Your task to perform on an android device: Is it going to rain this weekend? Image 0: 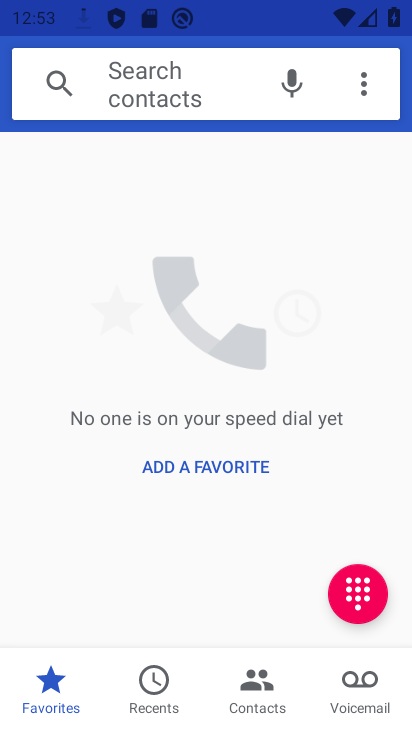
Step 0: press home button
Your task to perform on an android device: Is it going to rain this weekend? Image 1: 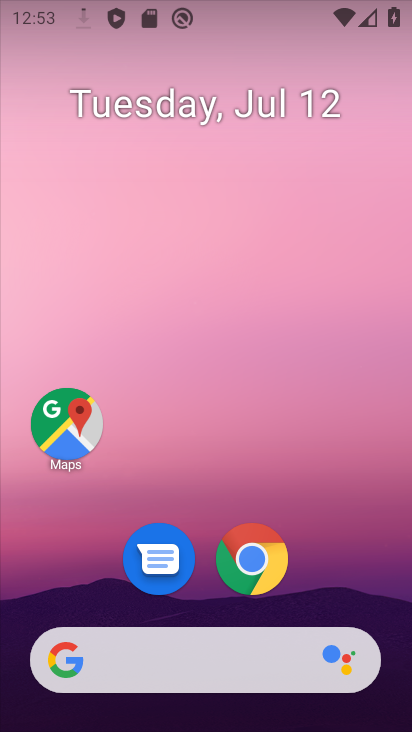
Step 1: drag from (350, 566) to (353, 64)
Your task to perform on an android device: Is it going to rain this weekend? Image 2: 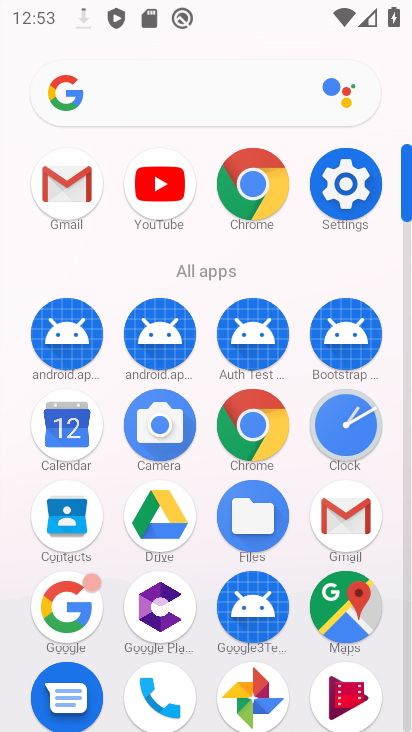
Step 2: click (74, 446)
Your task to perform on an android device: Is it going to rain this weekend? Image 3: 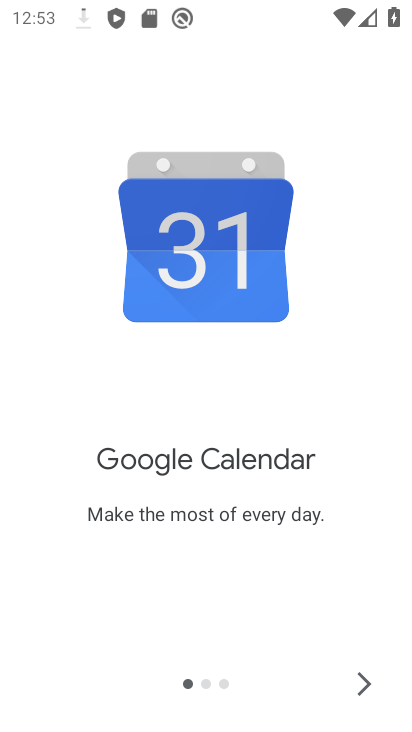
Step 3: click (355, 680)
Your task to perform on an android device: Is it going to rain this weekend? Image 4: 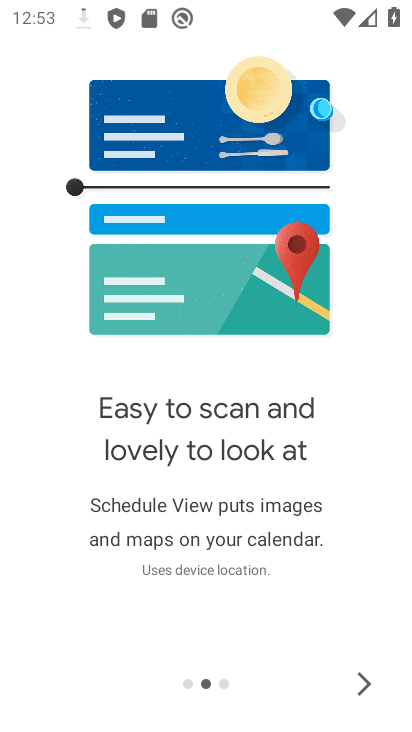
Step 4: press home button
Your task to perform on an android device: Is it going to rain this weekend? Image 5: 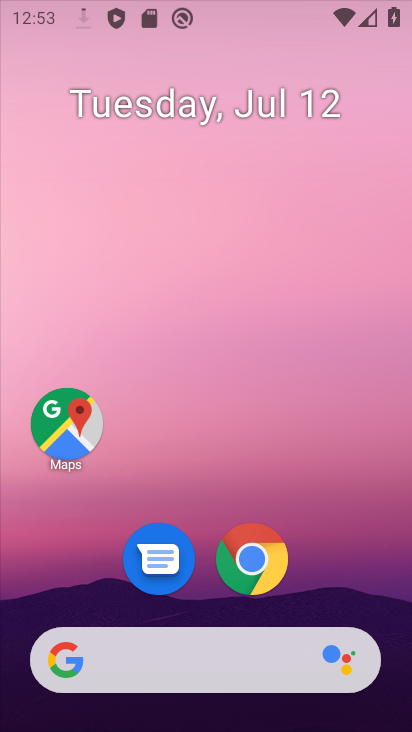
Step 5: click (234, 675)
Your task to perform on an android device: Is it going to rain this weekend? Image 6: 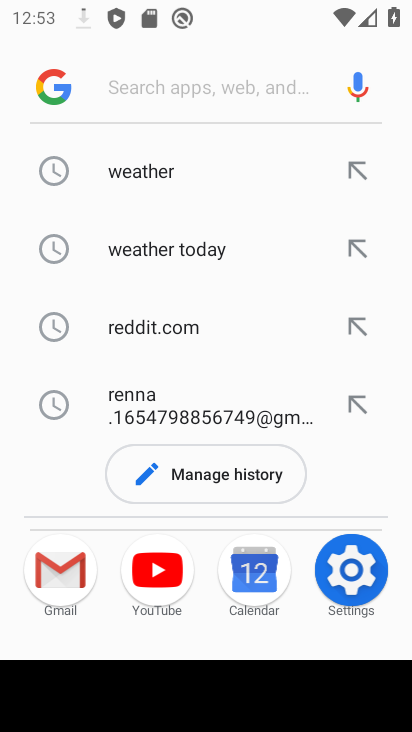
Step 6: click (143, 180)
Your task to perform on an android device: Is it going to rain this weekend? Image 7: 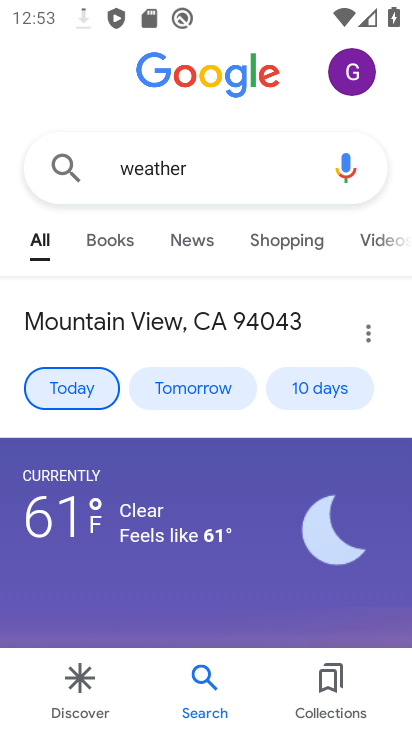
Step 7: click (315, 381)
Your task to perform on an android device: Is it going to rain this weekend? Image 8: 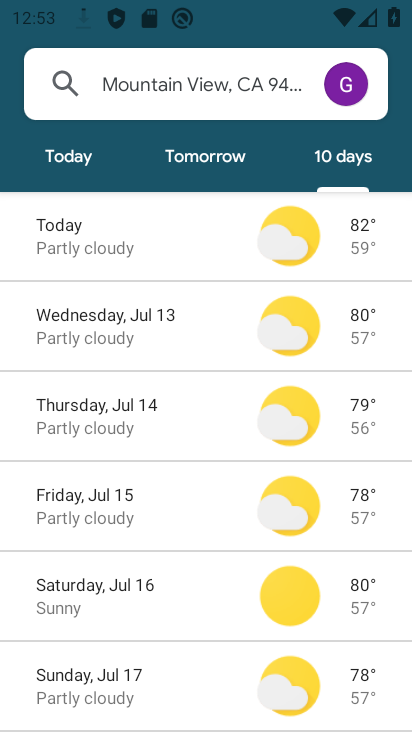
Step 8: drag from (195, 654) to (212, 466)
Your task to perform on an android device: Is it going to rain this weekend? Image 9: 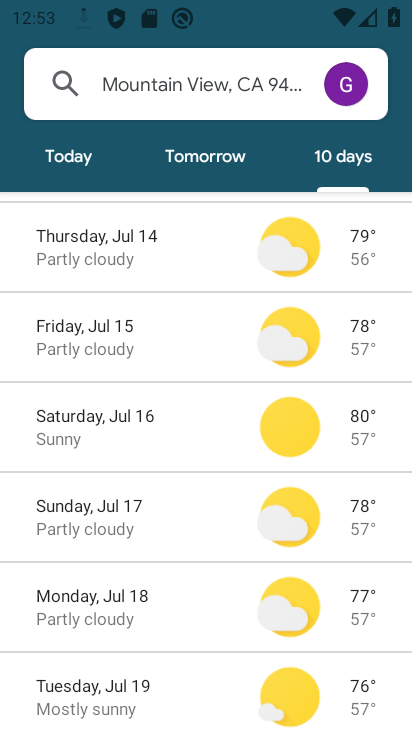
Step 9: drag from (192, 641) to (213, 444)
Your task to perform on an android device: Is it going to rain this weekend? Image 10: 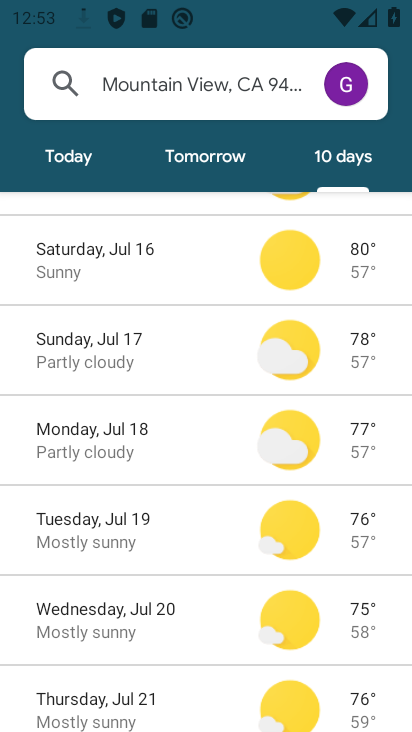
Step 10: drag from (198, 652) to (201, 501)
Your task to perform on an android device: Is it going to rain this weekend? Image 11: 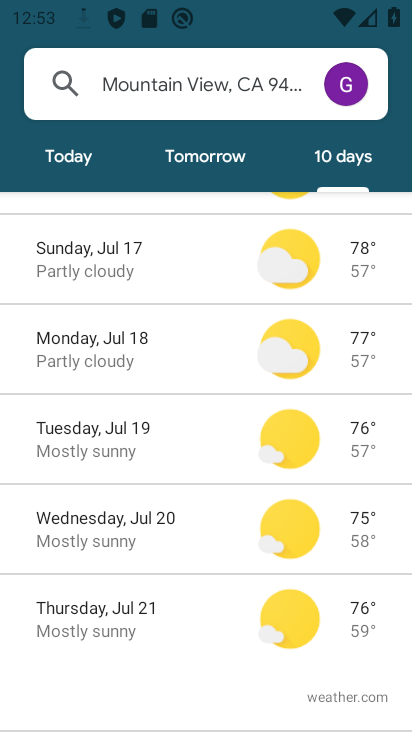
Step 11: drag from (195, 347) to (216, 542)
Your task to perform on an android device: Is it going to rain this weekend? Image 12: 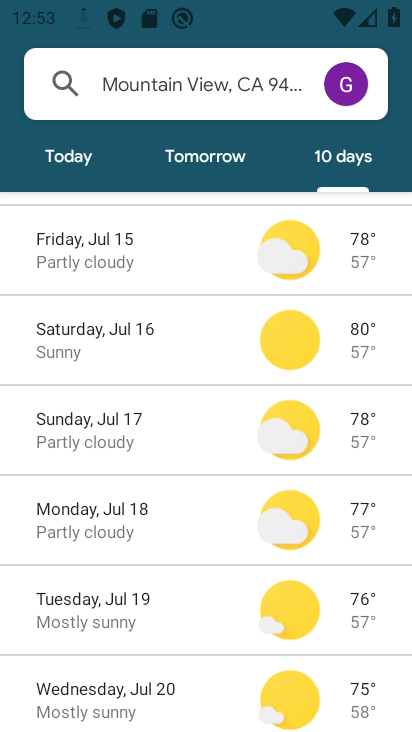
Step 12: drag from (183, 253) to (203, 380)
Your task to perform on an android device: Is it going to rain this weekend? Image 13: 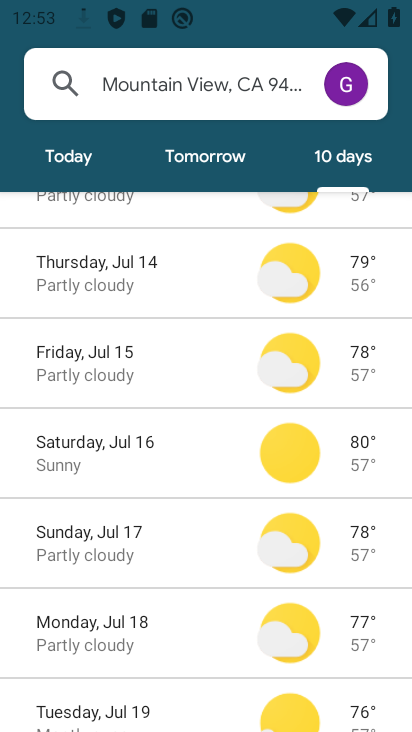
Step 13: click (151, 464)
Your task to perform on an android device: Is it going to rain this weekend? Image 14: 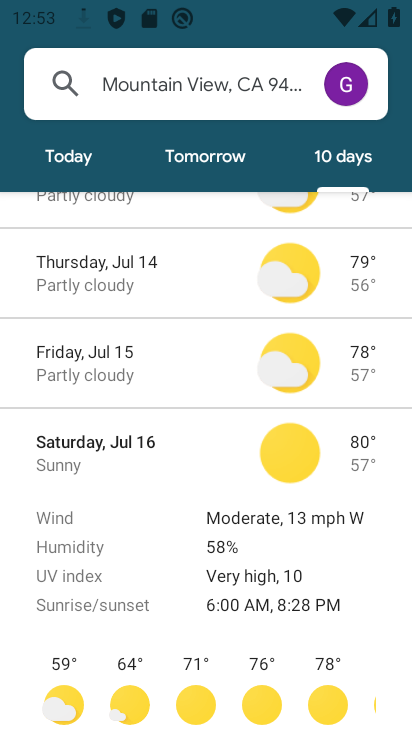
Step 14: task complete